Your task to perform on an android device: open app "Viber Messenger" (install if not already installed) and go to login screen Image 0: 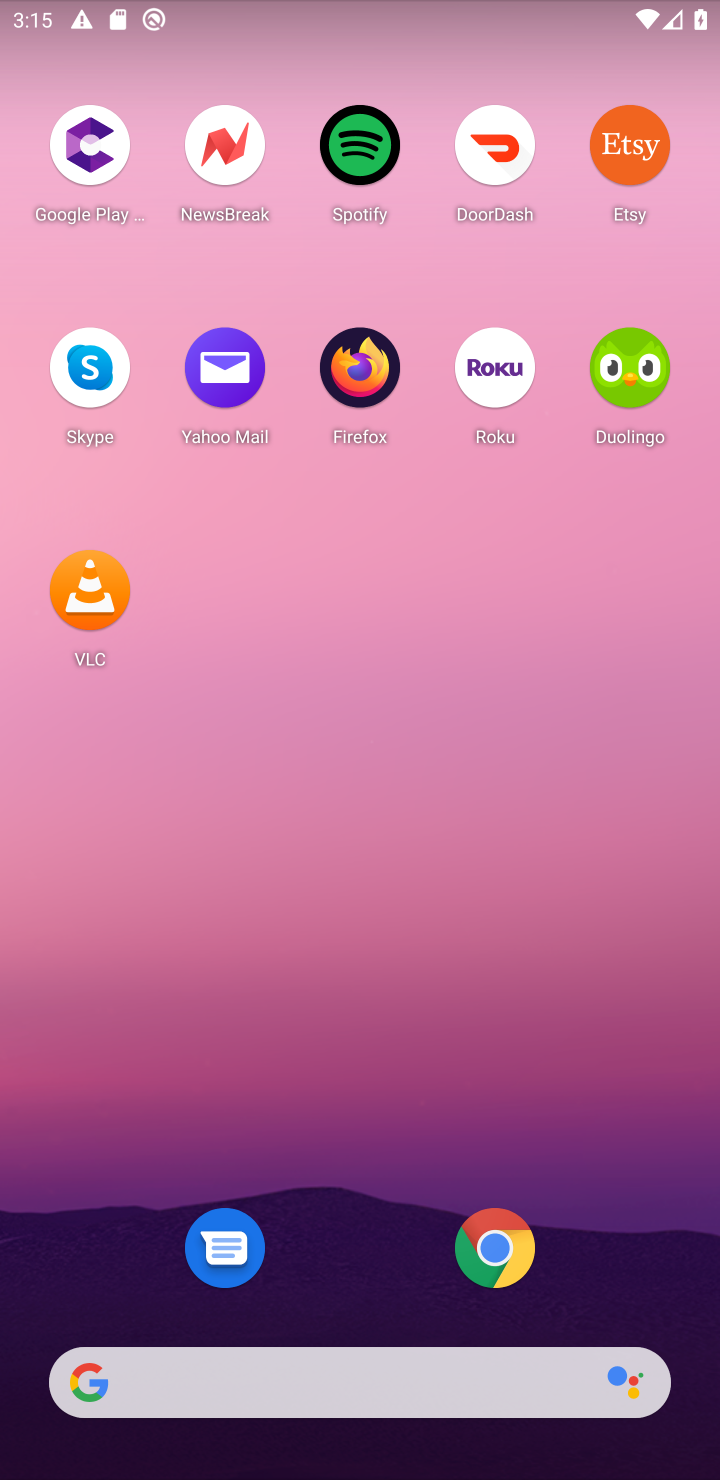
Step 0: drag from (345, 700) to (366, 245)
Your task to perform on an android device: open app "Viber Messenger" (install if not already installed) and go to login screen Image 1: 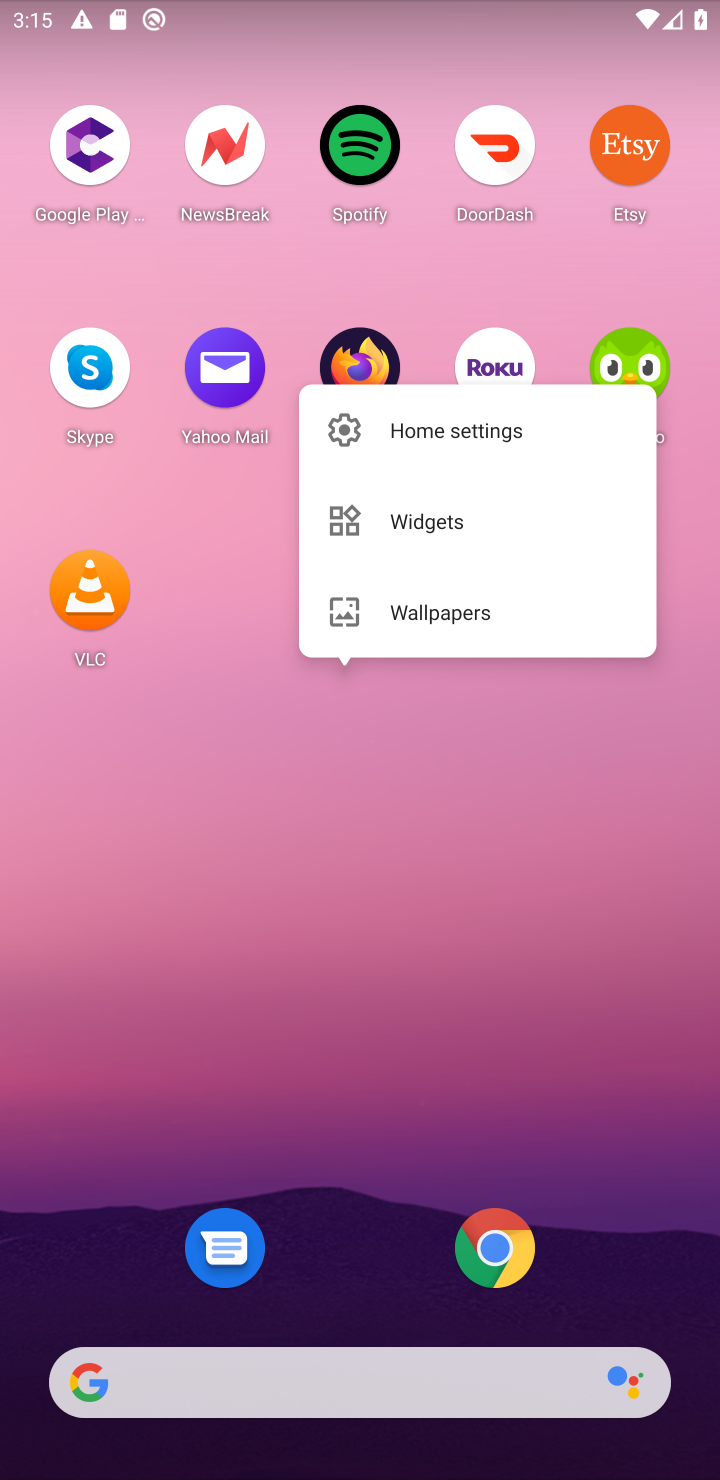
Step 1: click (460, 784)
Your task to perform on an android device: open app "Viber Messenger" (install if not already installed) and go to login screen Image 2: 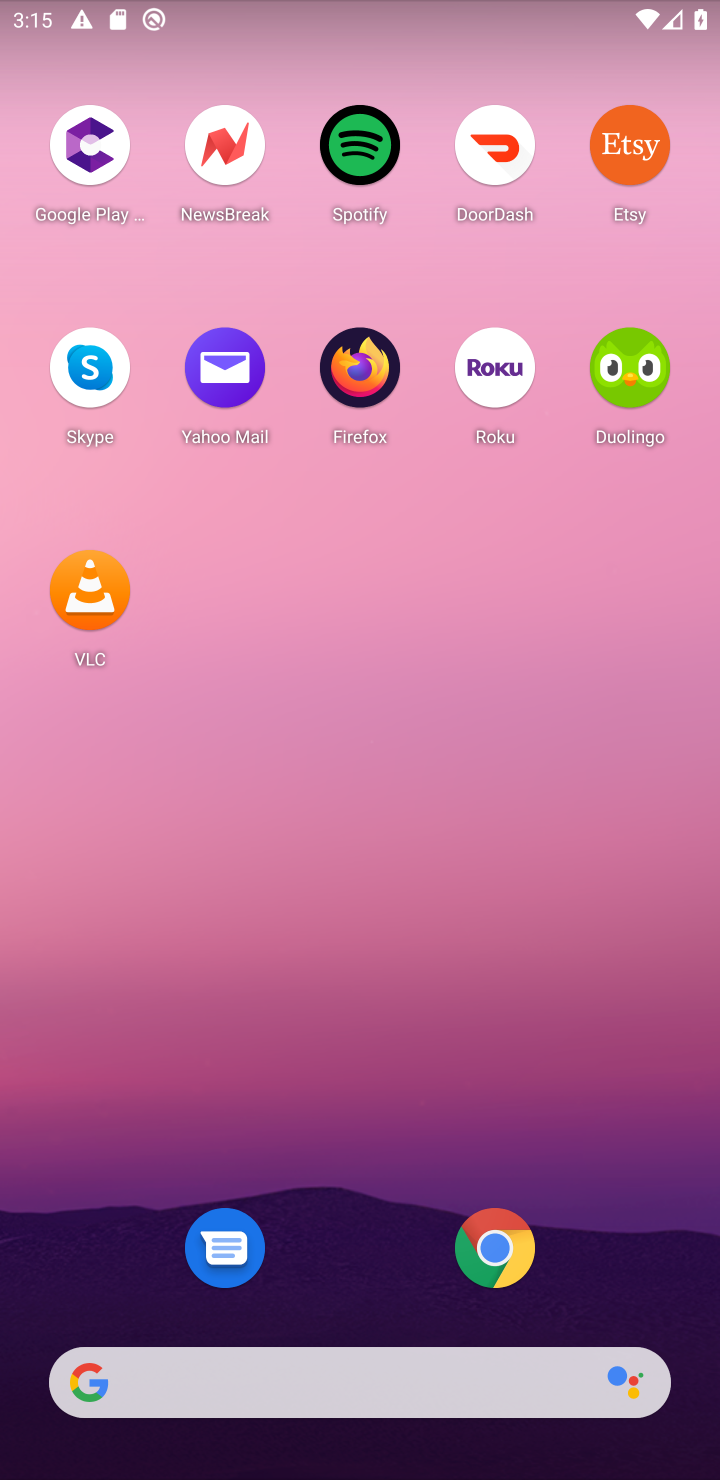
Step 2: drag from (345, 754) to (355, 372)
Your task to perform on an android device: open app "Viber Messenger" (install if not already installed) and go to login screen Image 3: 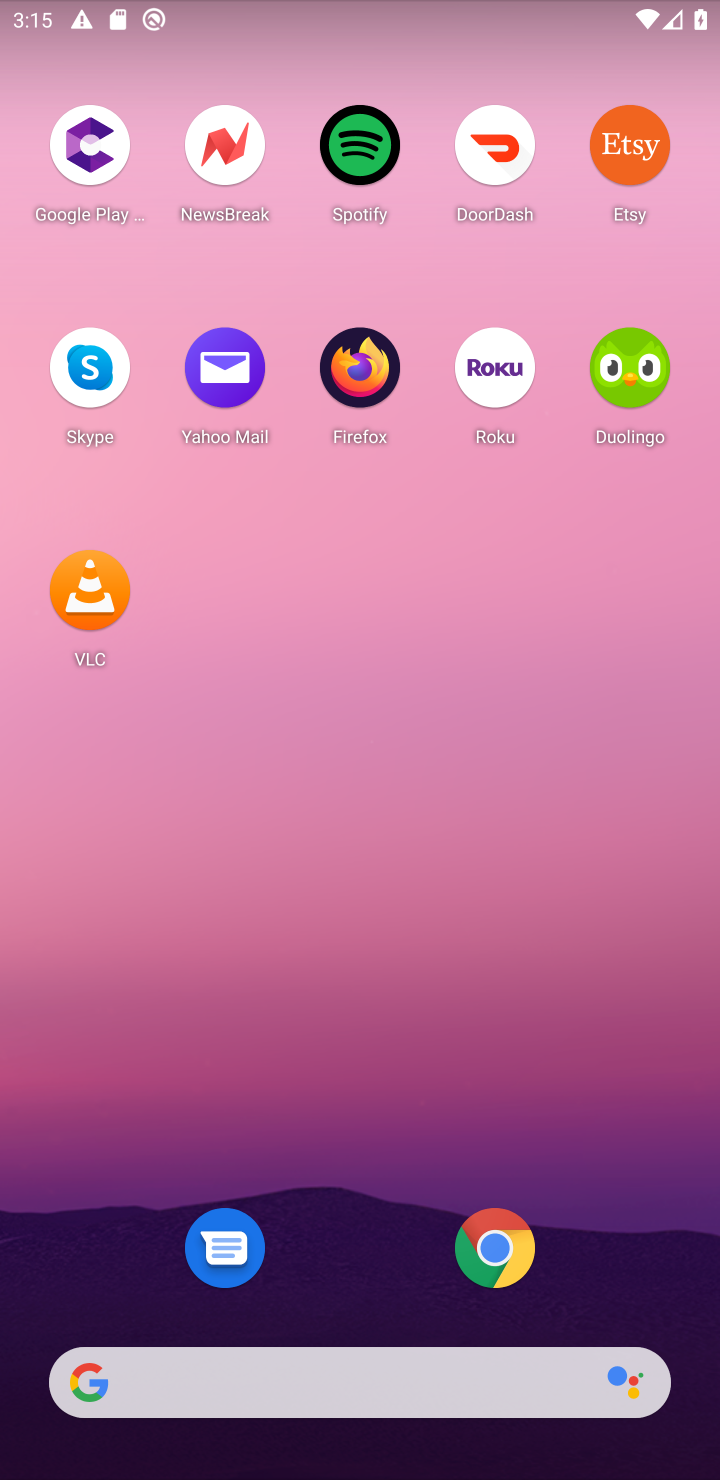
Step 3: drag from (368, 945) to (379, 334)
Your task to perform on an android device: open app "Viber Messenger" (install if not already installed) and go to login screen Image 4: 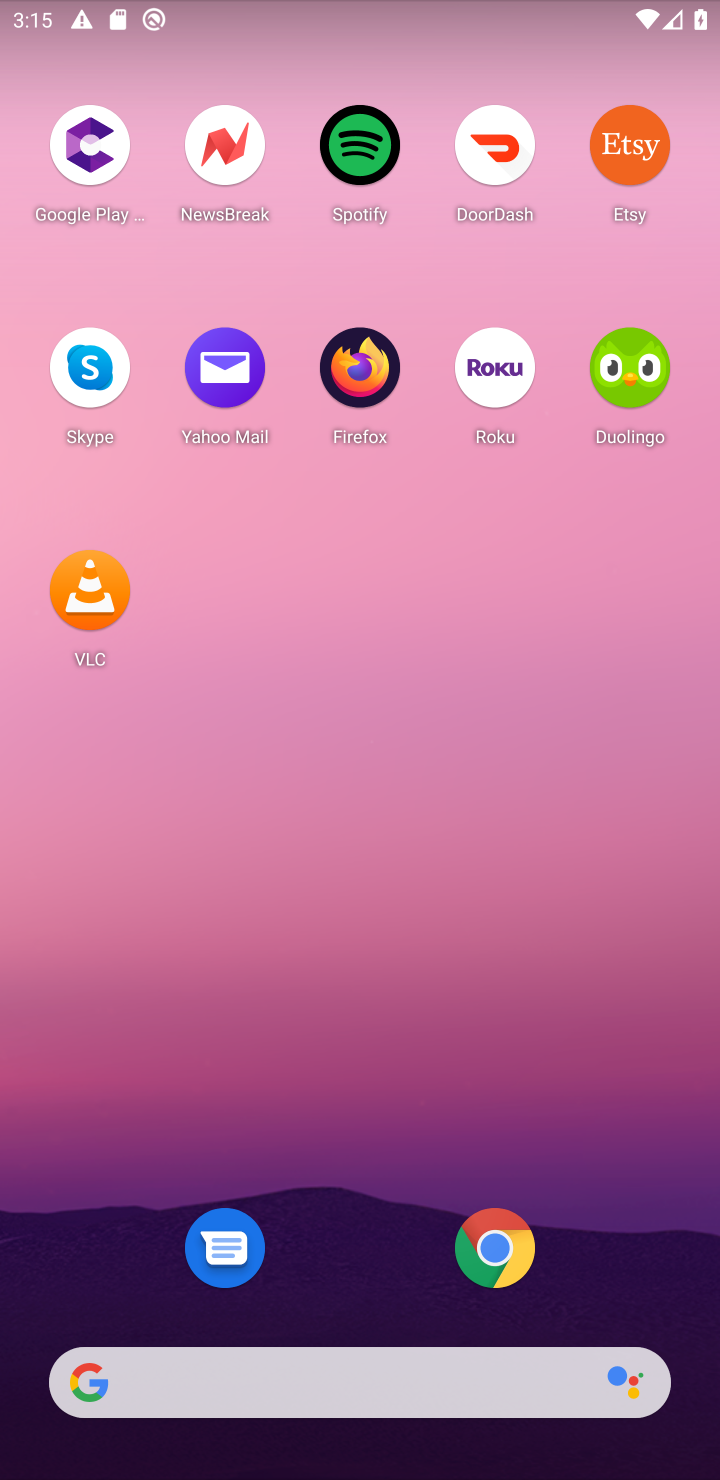
Step 4: drag from (345, 920) to (345, 380)
Your task to perform on an android device: open app "Viber Messenger" (install if not already installed) and go to login screen Image 5: 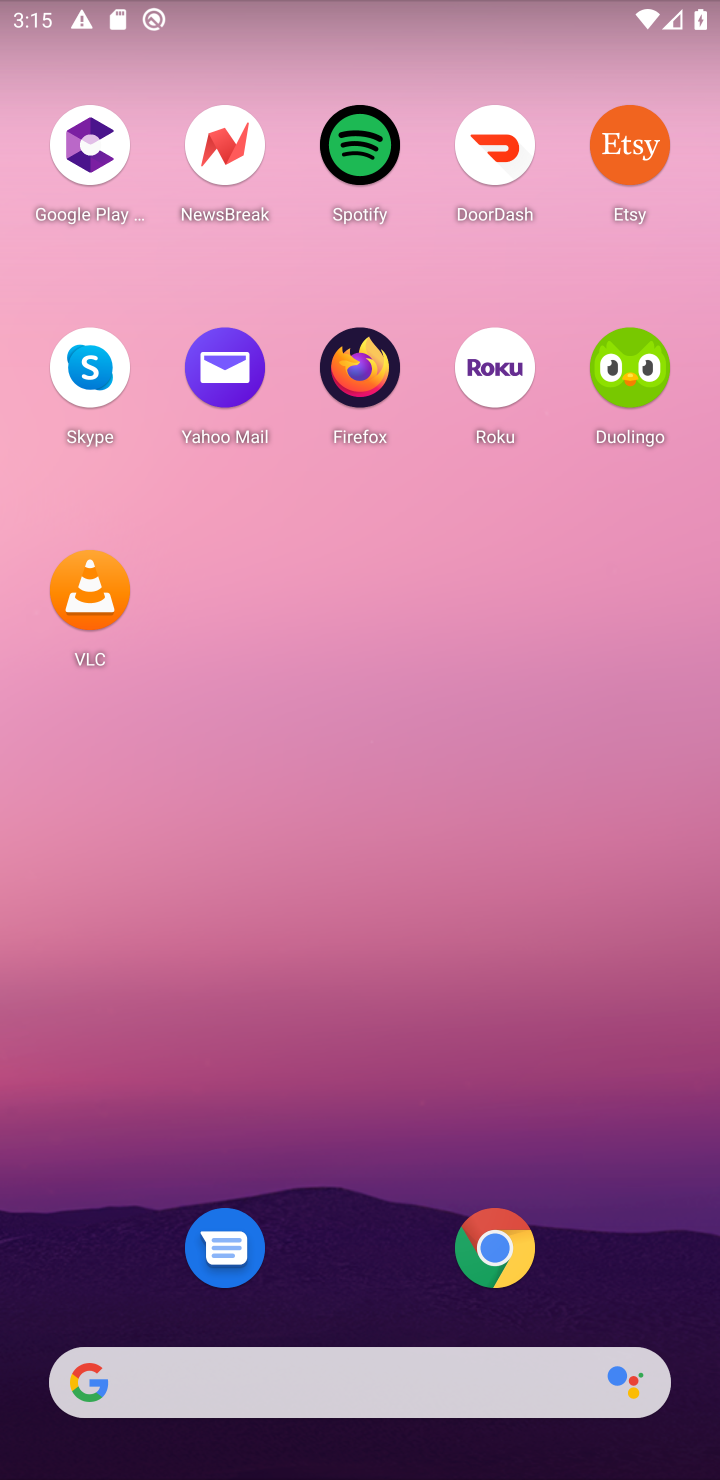
Step 5: drag from (351, 892) to (359, 350)
Your task to perform on an android device: open app "Viber Messenger" (install if not already installed) and go to login screen Image 6: 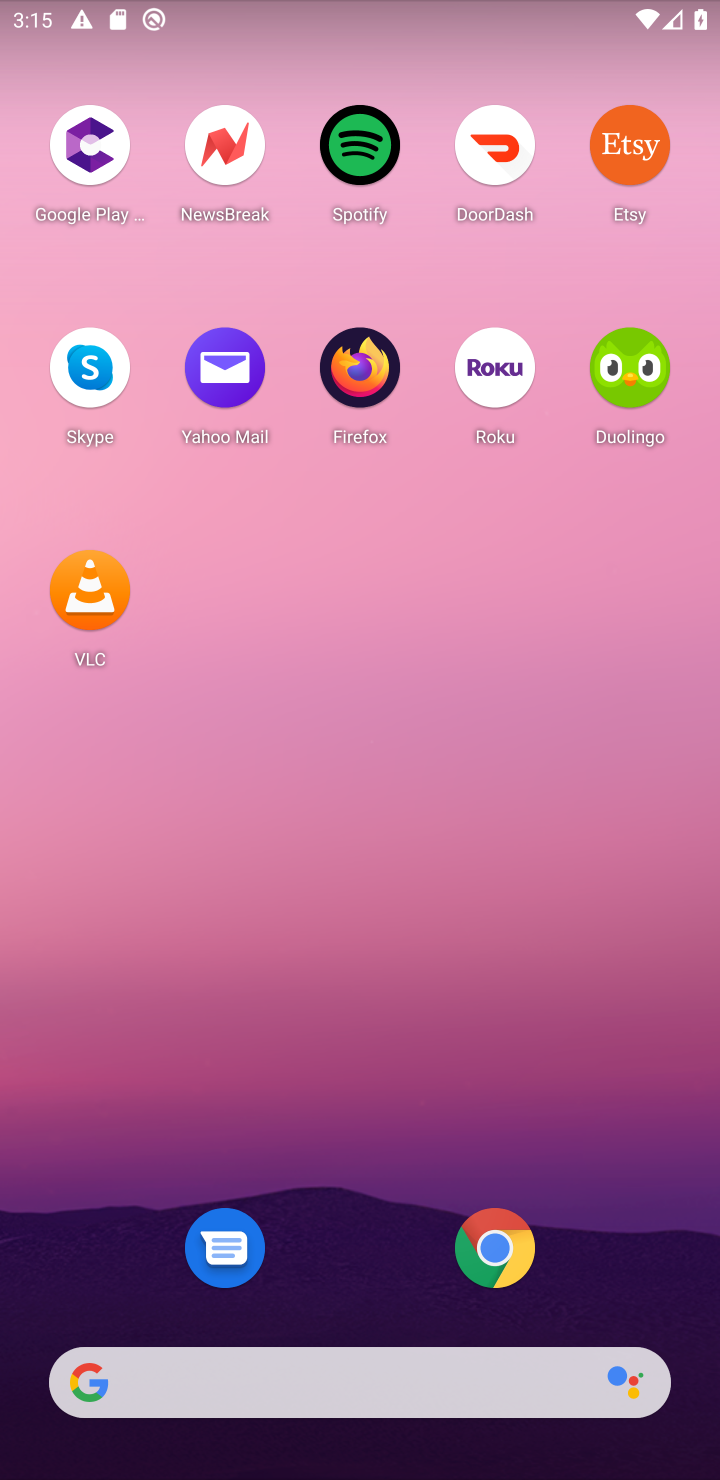
Step 6: drag from (326, 1242) to (264, 154)
Your task to perform on an android device: open app "Viber Messenger" (install if not already installed) and go to login screen Image 7: 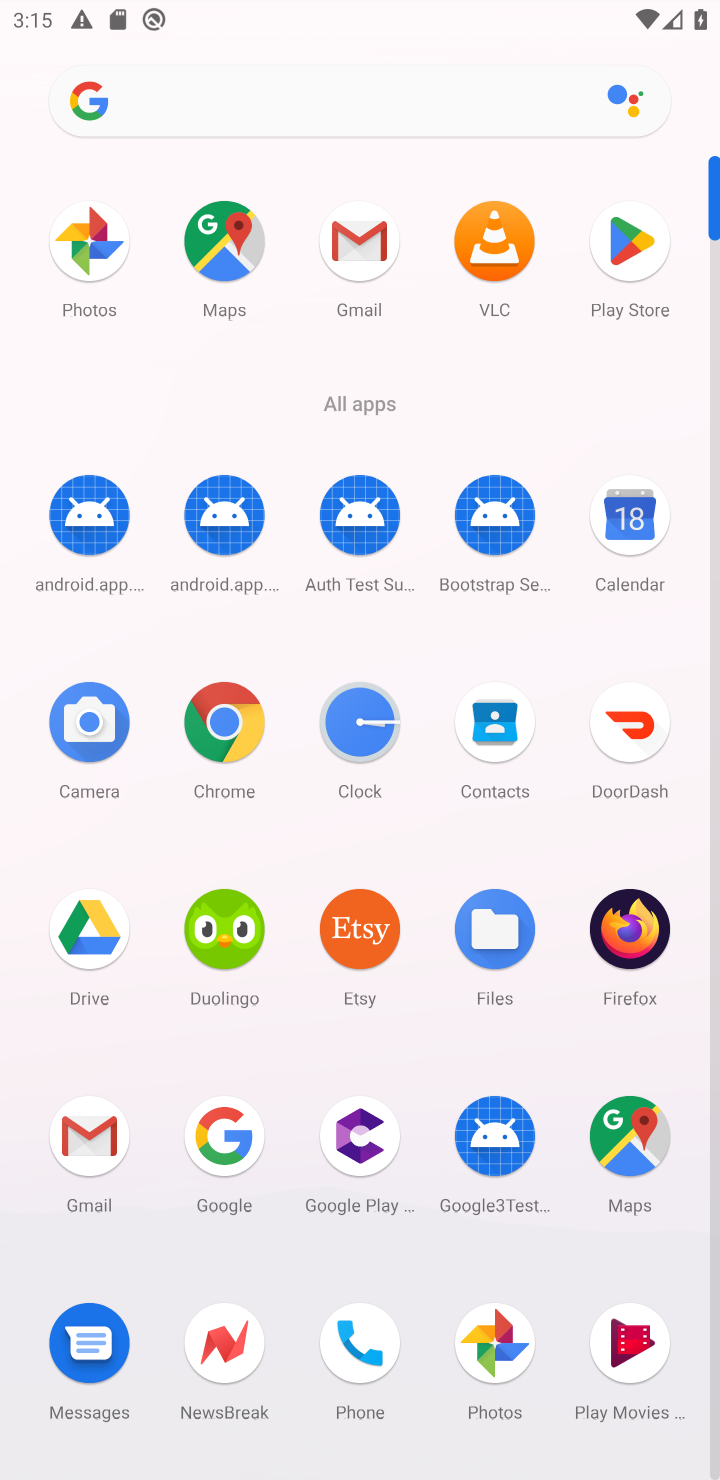
Step 7: click (627, 239)
Your task to perform on an android device: open app "Viber Messenger" (install if not already installed) and go to login screen Image 8: 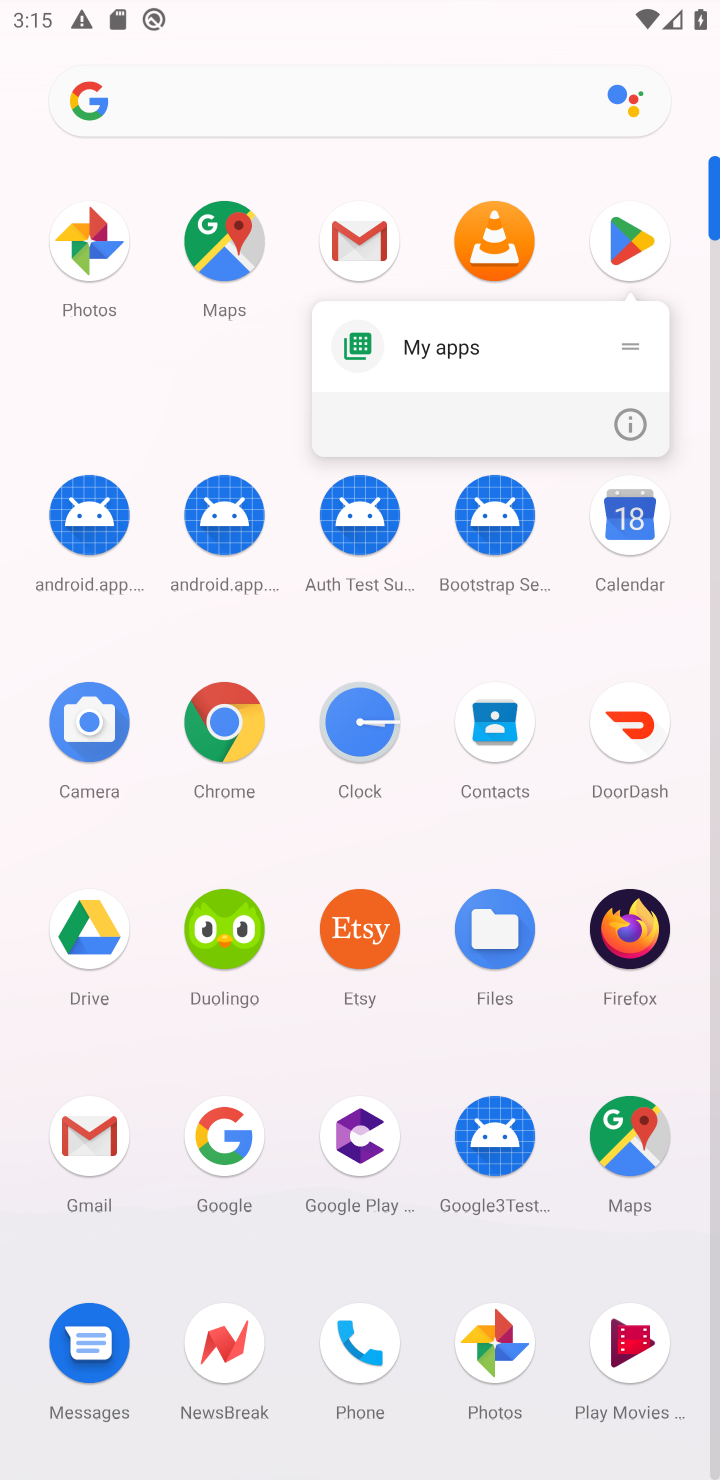
Step 8: click (626, 239)
Your task to perform on an android device: open app "Viber Messenger" (install if not already installed) and go to login screen Image 9: 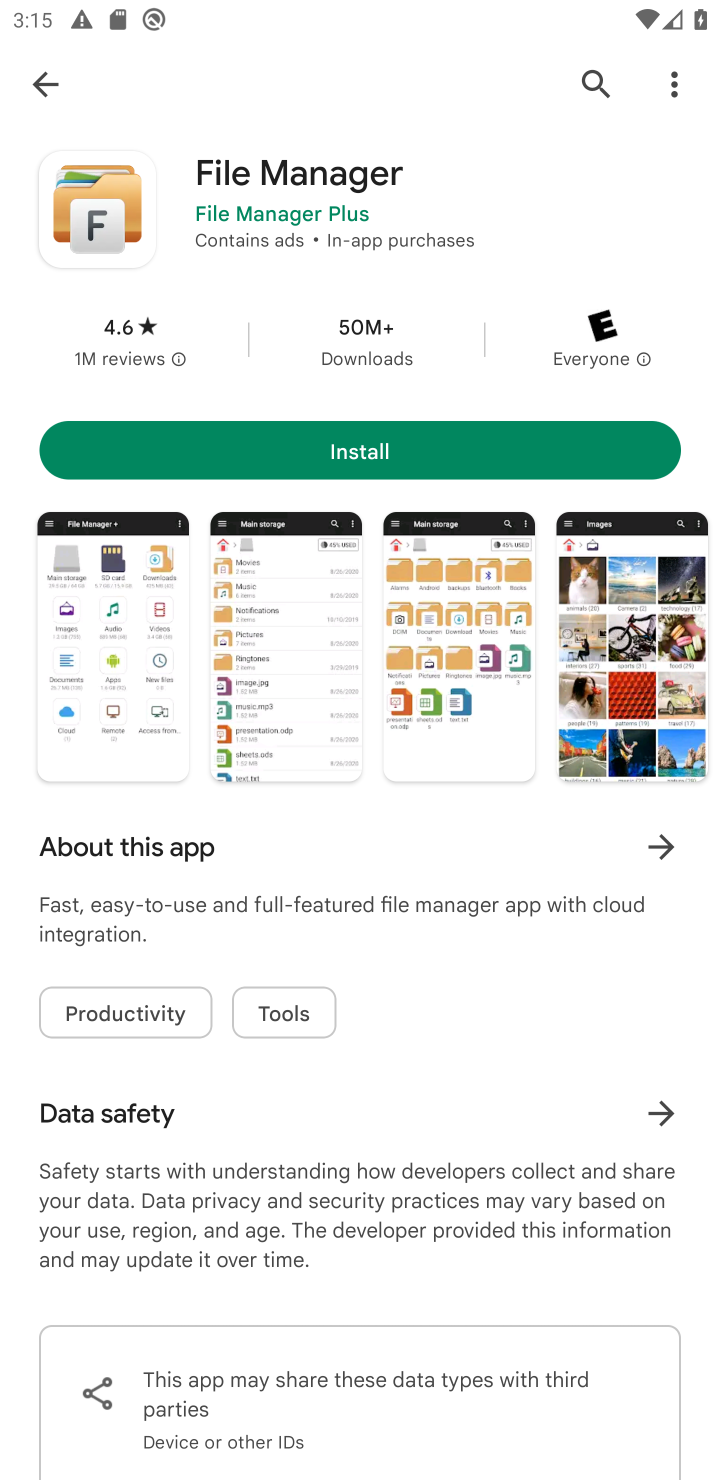
Step 9: click (592, 76)
Your task to perform on an android device: open app "Viber Messenger" (install if not already installed) and go to login screen Image 10: 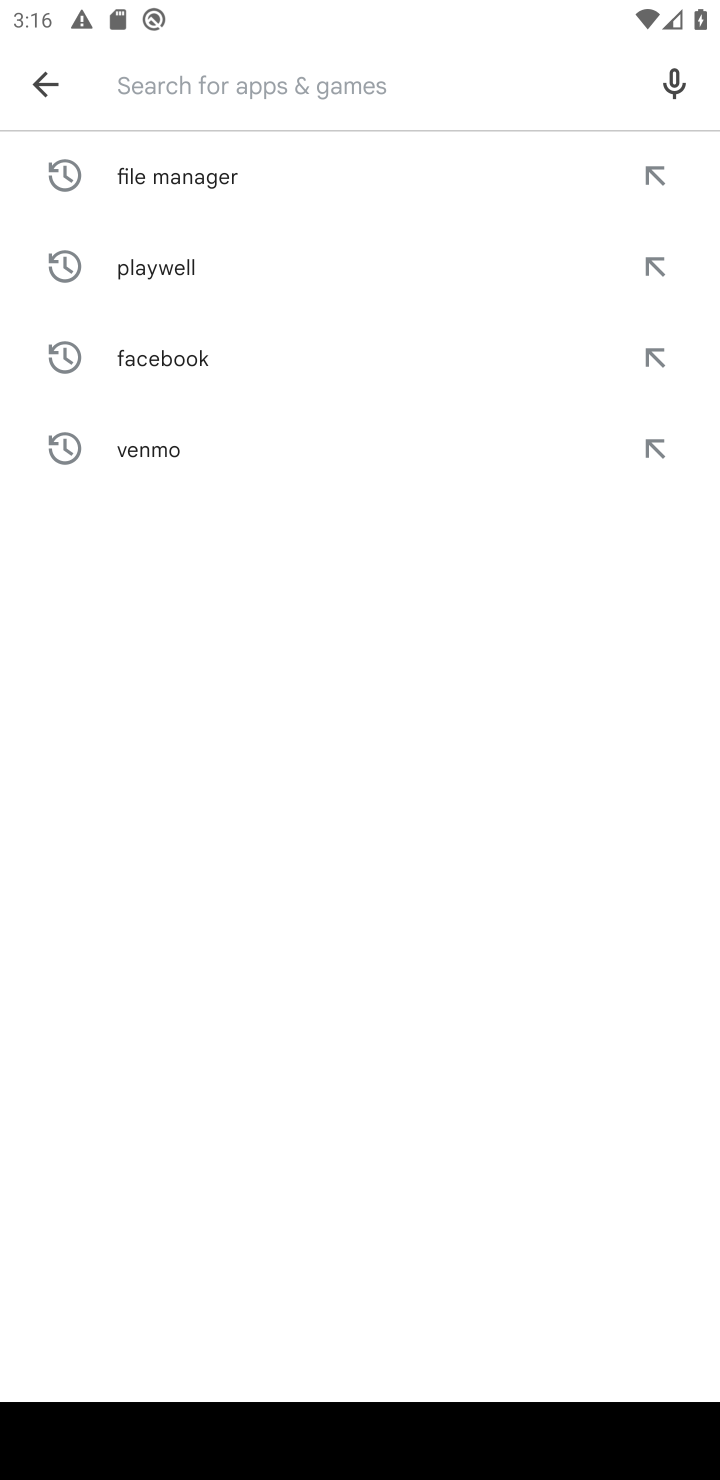
Step 10: type "Viber Messenger"
Your task to perform on an android device: open app "Viber Messenger" (install if not already installed) and go to login screen Image 11: 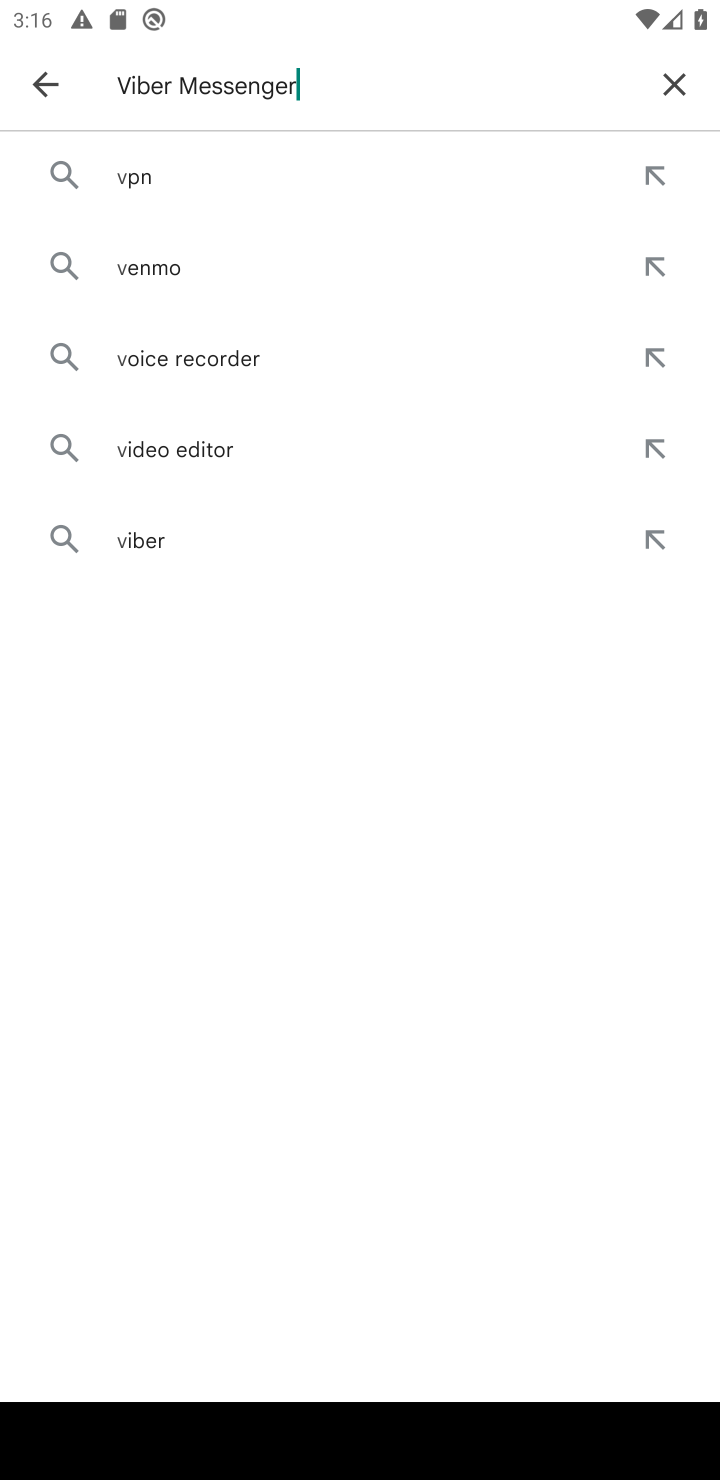
Step 11: type ""
Your task to perform on an android device: open app "Viber Messenger" (install if not already installed) and go to login screen Image 12: 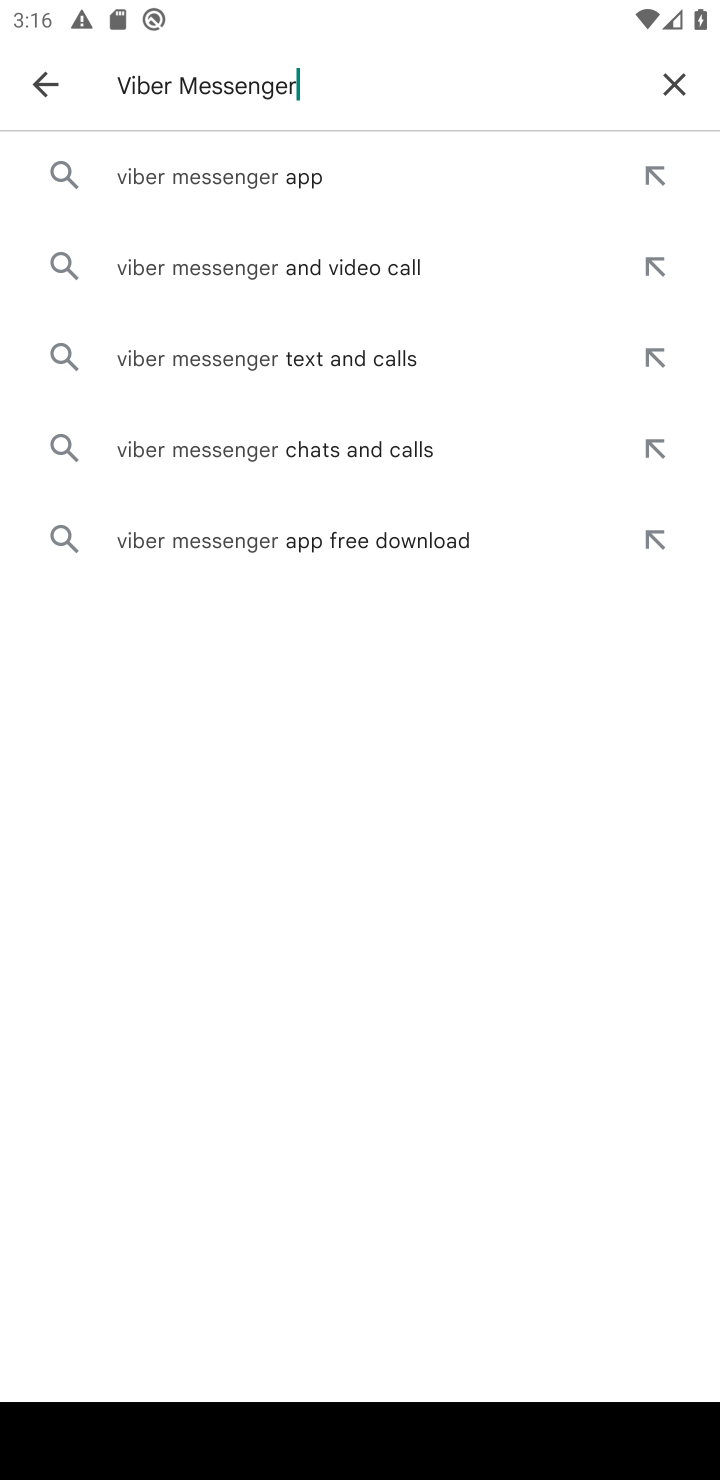
Step 12: click (258, 167)
Your task to perform on an android device: open app "Viber Messenger" (install if not already installed) and go to login screen Image 13: 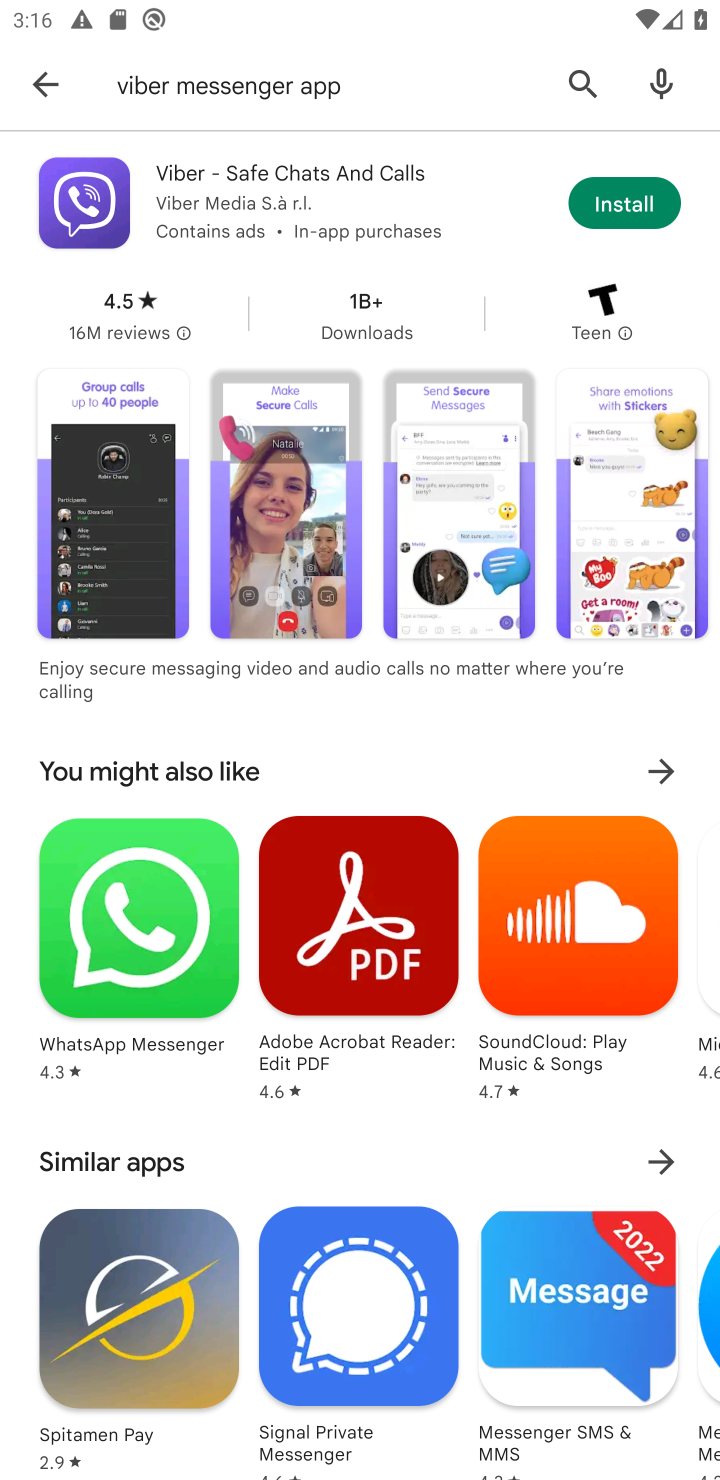
Step 13: click (621, 199)
Your task to perform on an android device: open app "Viber Messenger" (install if not already installed) and go to login screen Image 14: 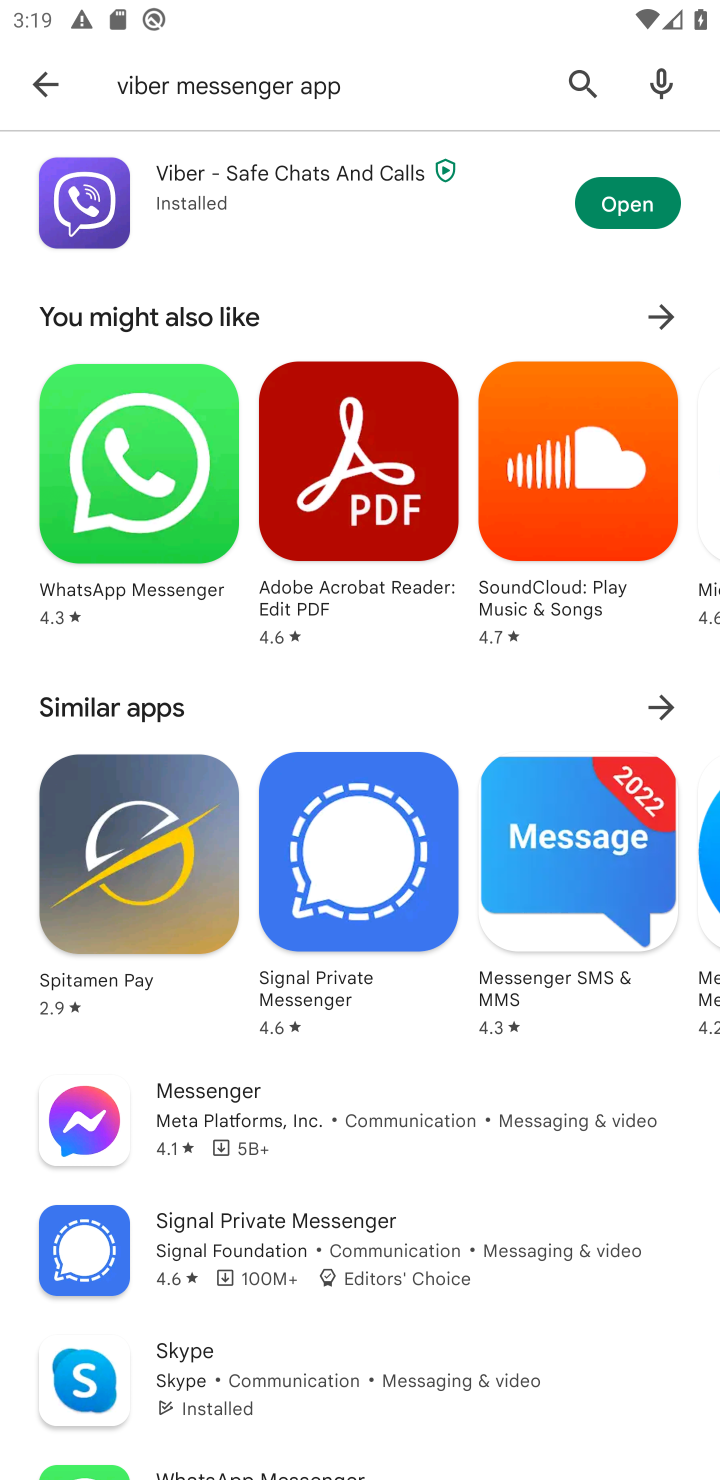
Step 14: click (619, 196)
Your task to perform on an android device: open app "Viber Messenger" (install if not already installed) and go to login screen Image 15: 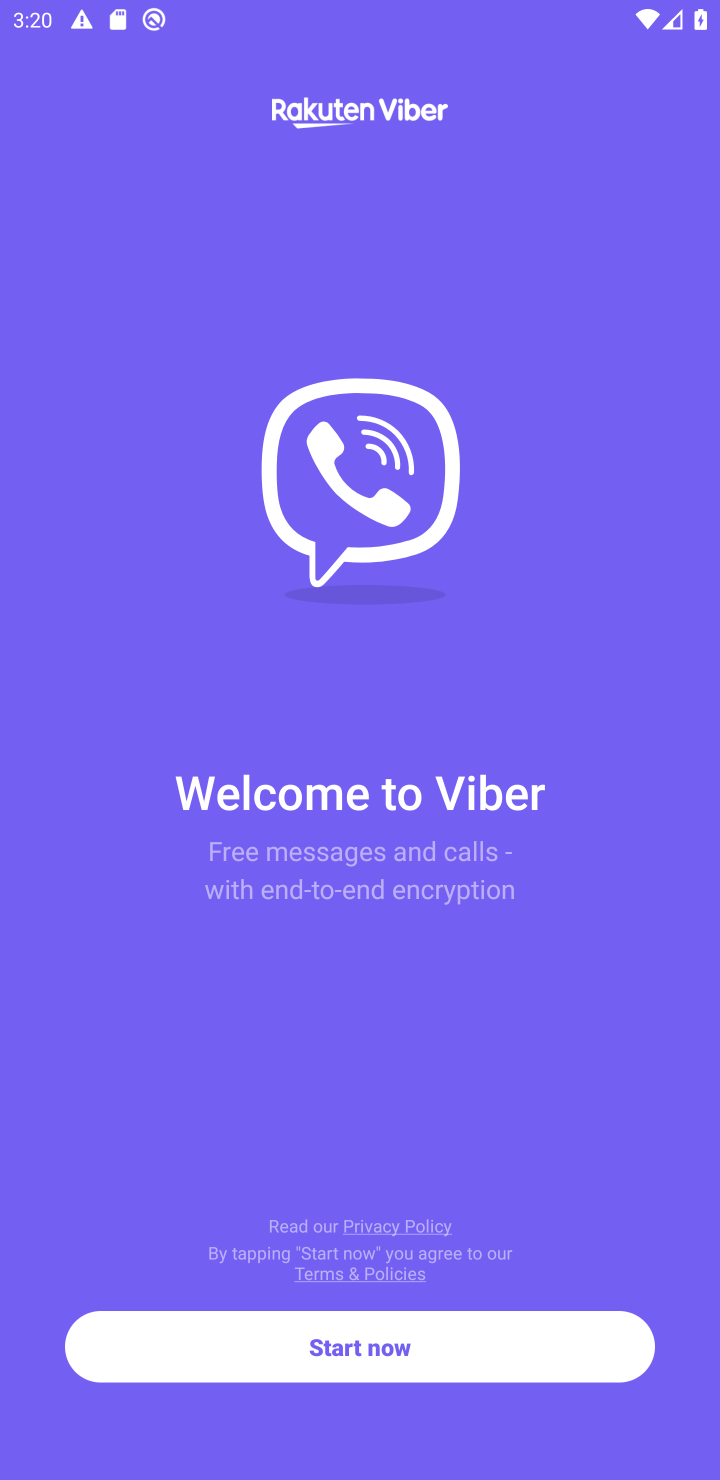
Step 15: task complete